Your task to perform on an android device: Go to settings Image 0: 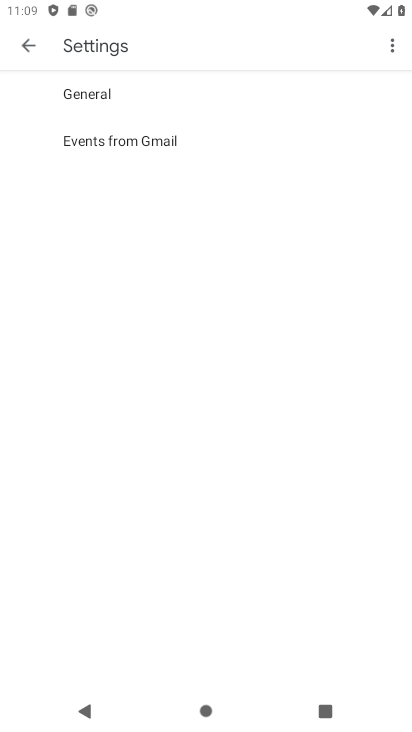
Step 0: press home button
Your task to perform on an android device: Go to settings Image 1: 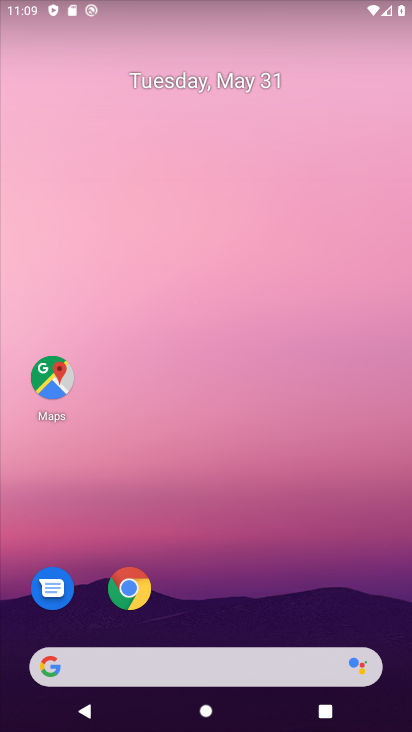
Step 1: drag from (237, 608) to (255, 265)
Your task to perform on an android device: Go to settings Image 2: 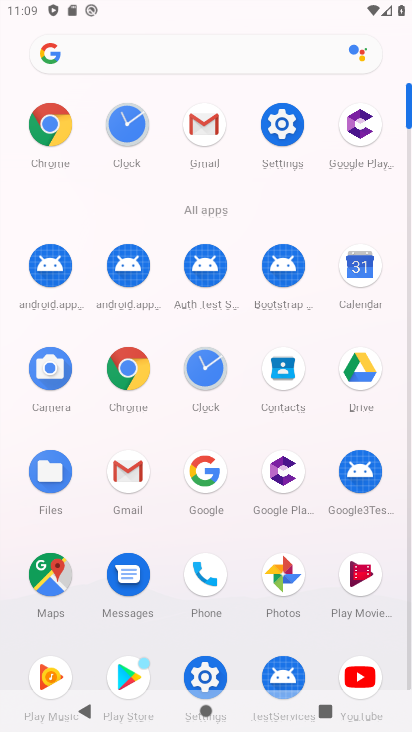
Step 2: click (283, 117)
Your task to perform on an android device: Go to settings Image 3: 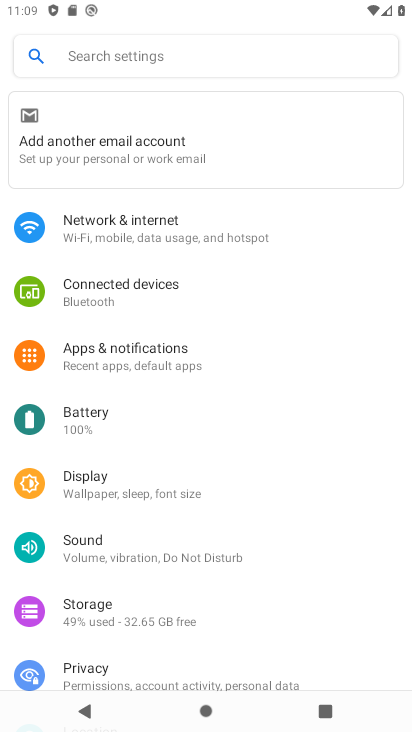
Step 3: task complete